Your task to perform on an android device: Open Chrome and go to the settings page Image 0: 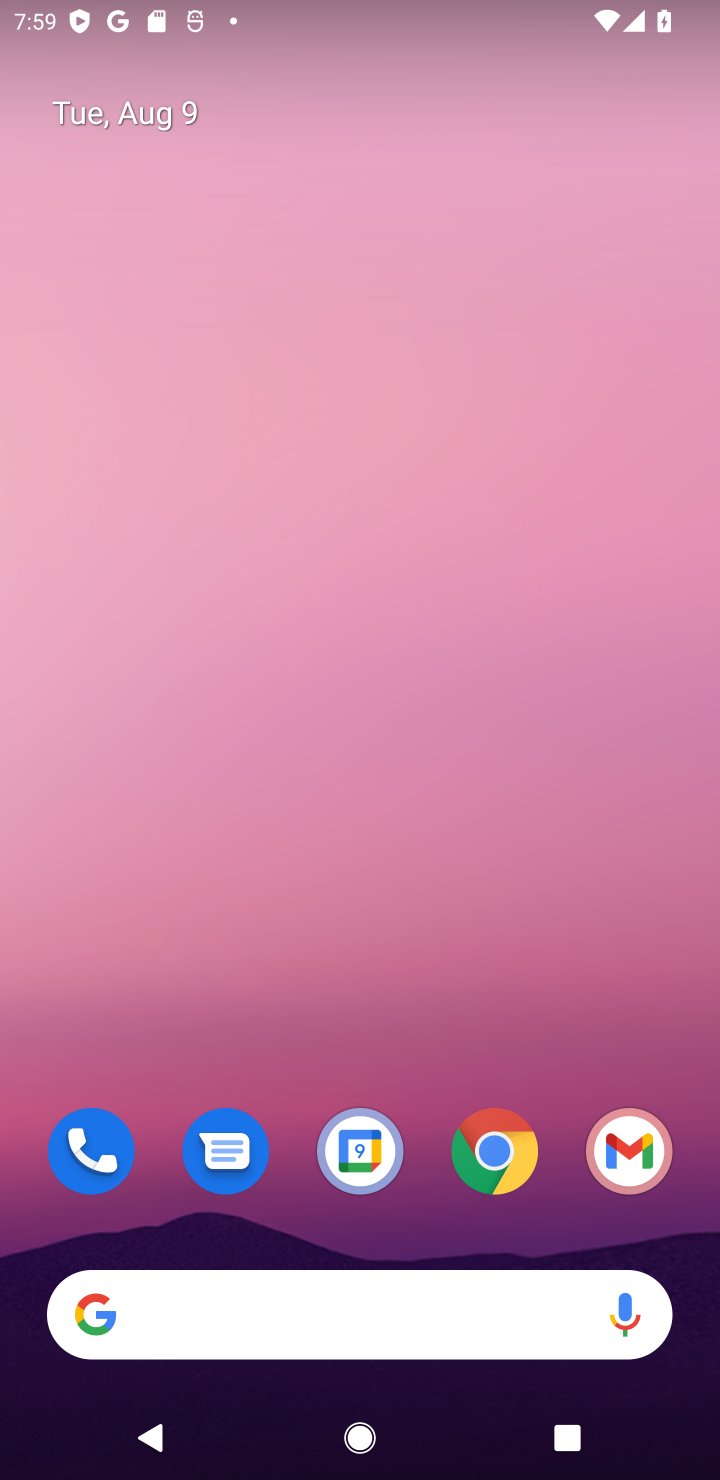
Step 0: click (506, 1160)
Your task to perform on an android device: Open Chrome and go to the settings page Image 1: 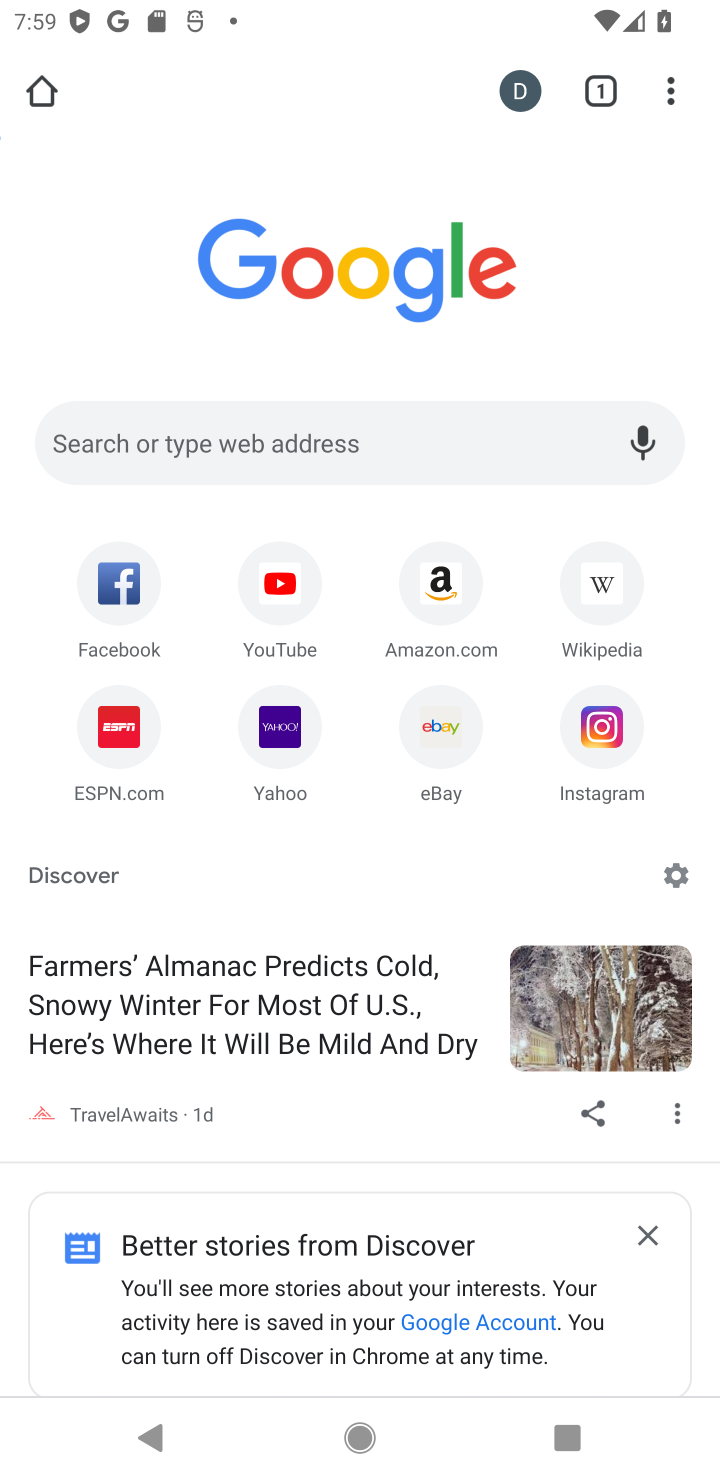
Step 1: click (663, 96)
Your task to perform on an android device: Open Chrome and go to the settings page Image 2: 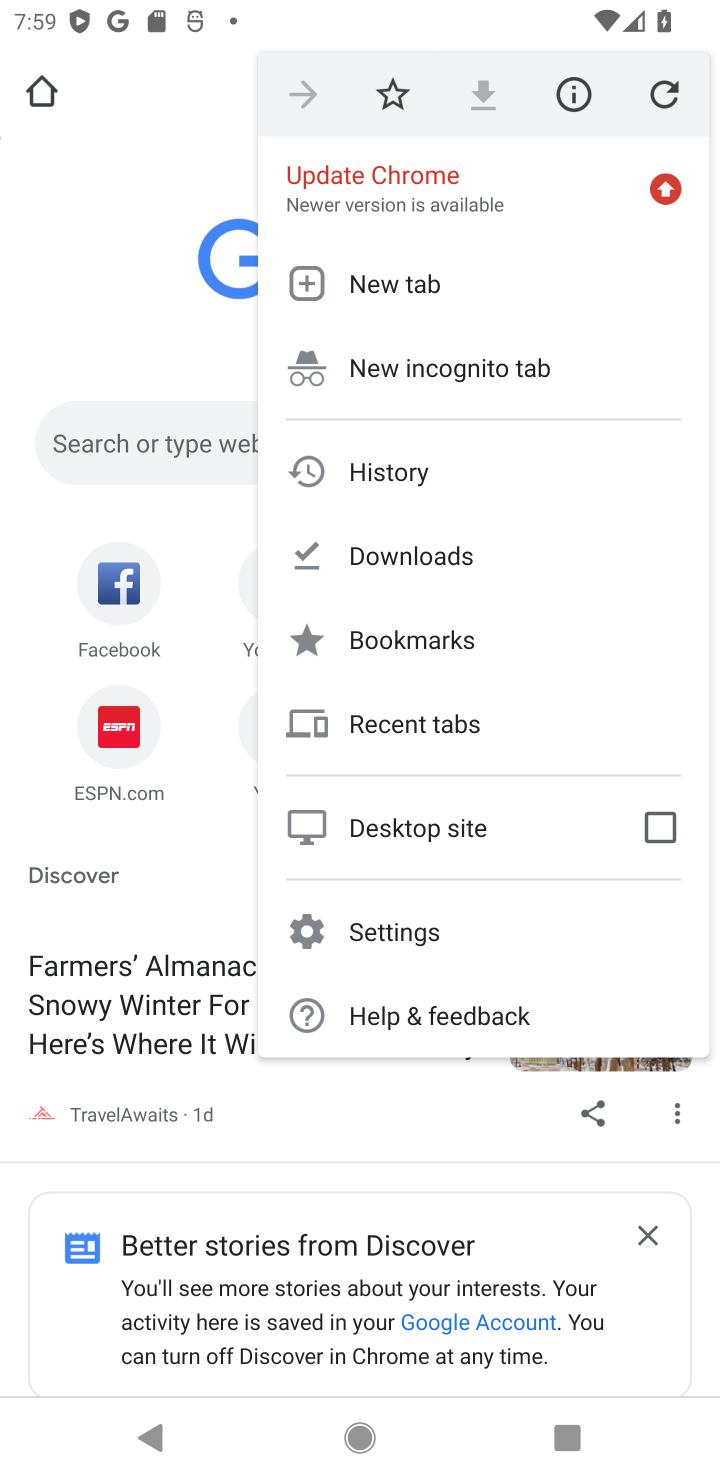
Step 2: click (379, 918)
Your task to perform on an android device: Open Chrome and go to the settings page Image 3: 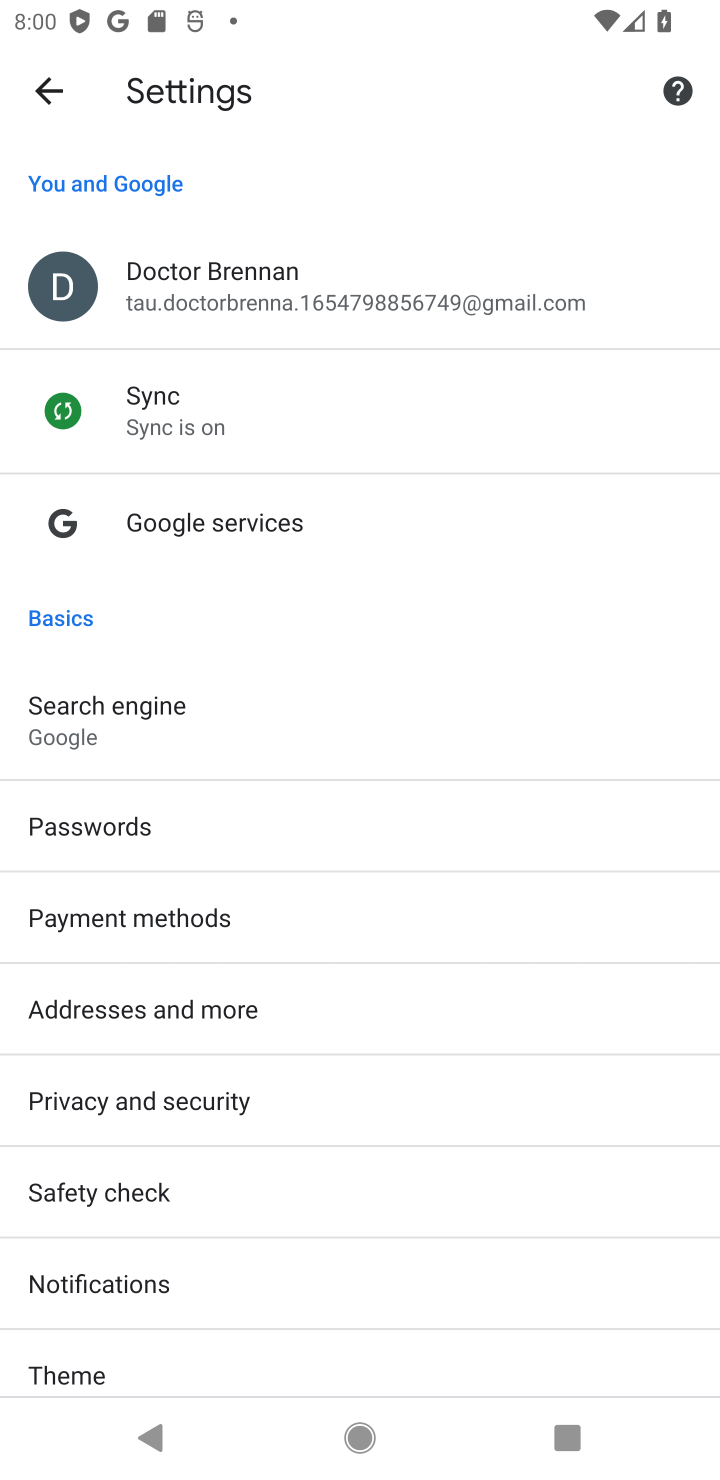
Step 3: task complete